Your task to perform on an android device: Go to Android settings Image 0: 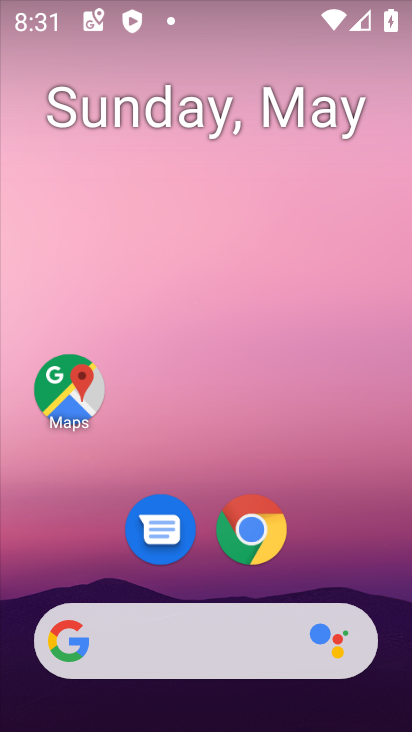
Step 0: drag from (347, 594) to (251, 2)
Your task to perform on an android device: Go to Android settings Image 1: 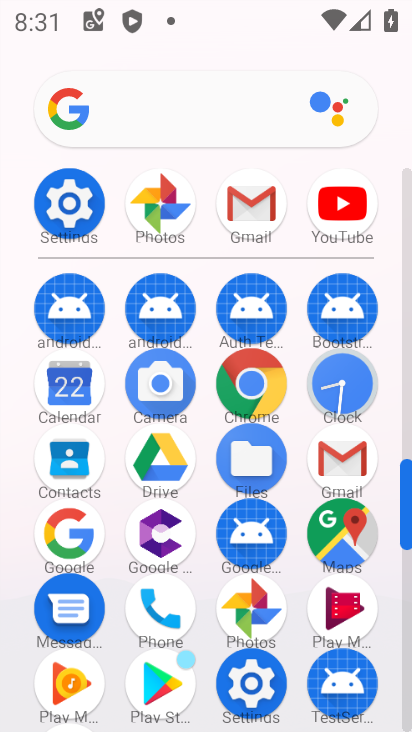
Step 1: click (48, 202)
Your task to perform on an android device: Go to Android settings Image 2: 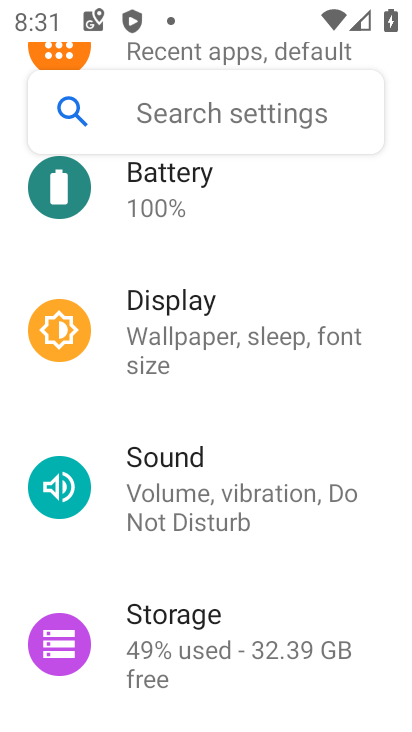
Step 2: task complete